Your task to perform on an android device: change text size in settings app Image 0: 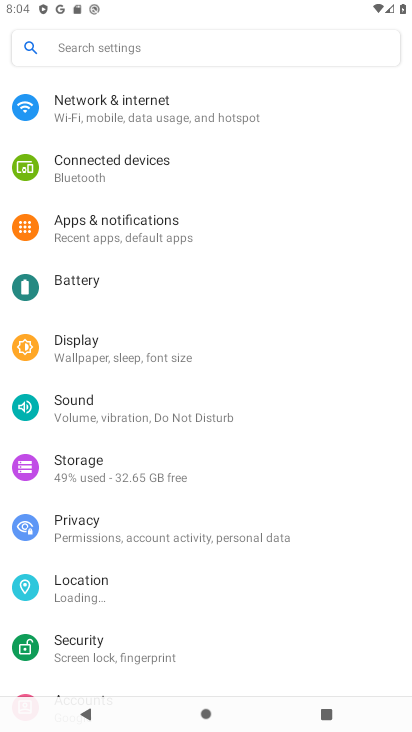
Step 0: drag from (244, 705) to (160, 79)
Your task to perform on an android device: change text size in settings app Image 1: 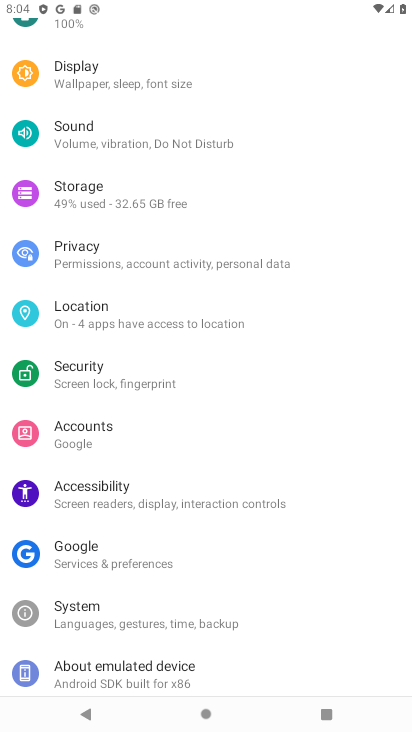
Step 1: click (78, 70)
Your task to perform on an android device: change text size in settings app Image 2: 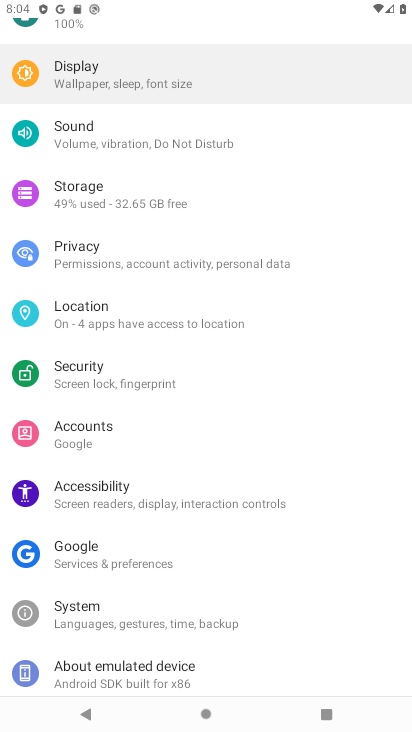
Step 2: click (78, 70)
Your task to perform on an android device: change text size in settings app Image 3: 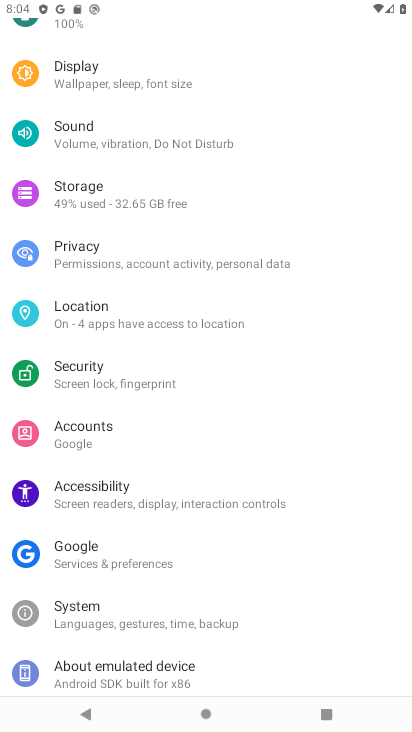
Step 3: click (78, 70)
Your task to perform on an android device: change text size in settings app Image 4: 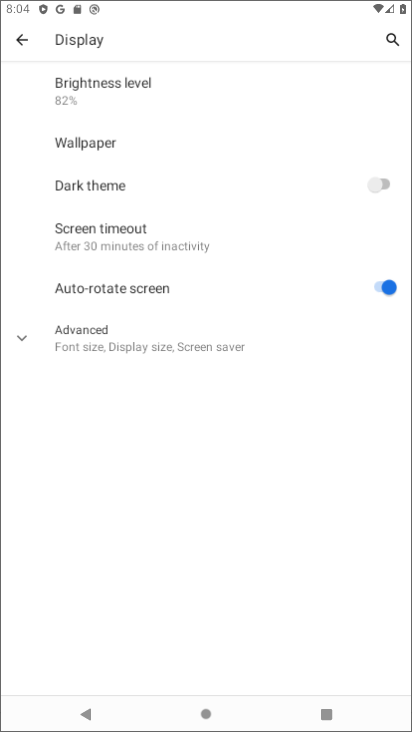
Step 4: click (78, 70)
Your task to perform on an android device: change text size in settings app Image 5: 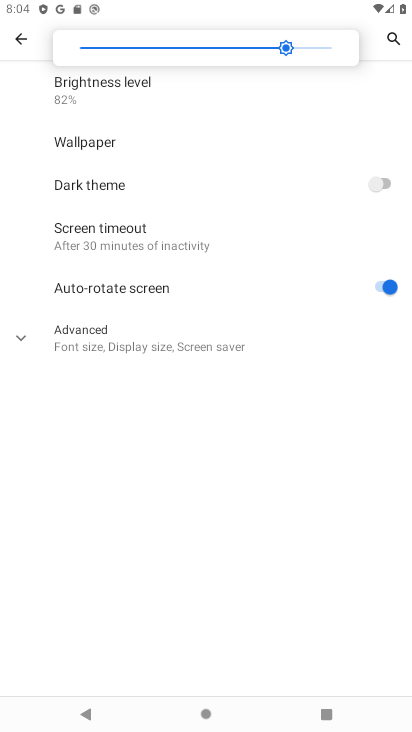
Step 5: task complete